Your task to perform on an android device: install app "Instagram" Image 0: 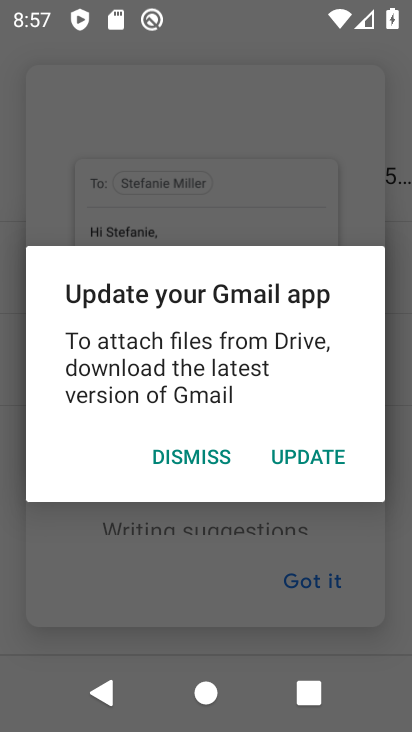
Step 0: press home button
Your task to perform on an android device: install app "Instagram" Image 1: 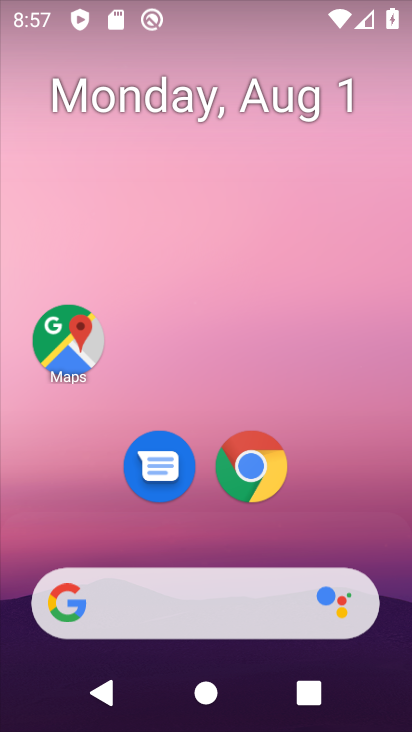
Step 1: drag from (249, 719) to (272, 70)
Your task to perform on an android device: install app "Instagram" Image 2: 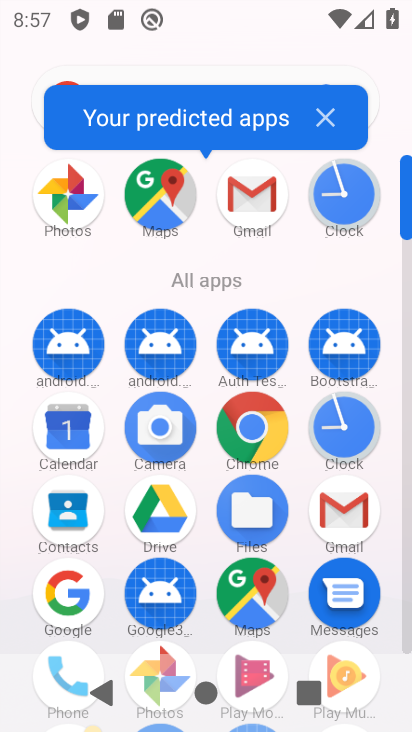
Step 2: drag from (207, 632) to (178, 222)
Your task to perform on an android device: install app "Instagram" Image 3: 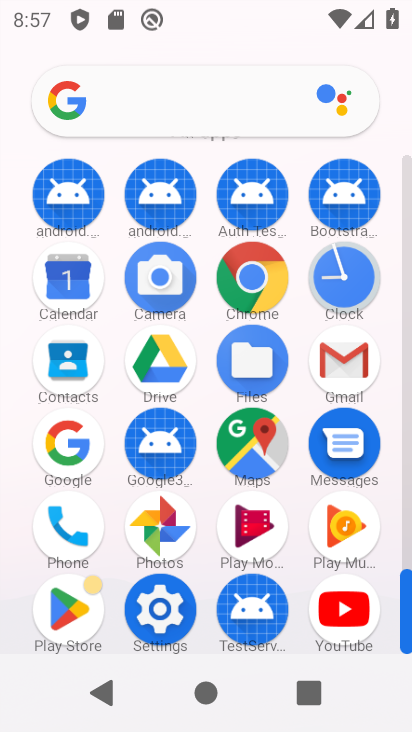
Step 3: click (70, 609)
Your task to perform on an android device: install app "Instagram" Image 4: 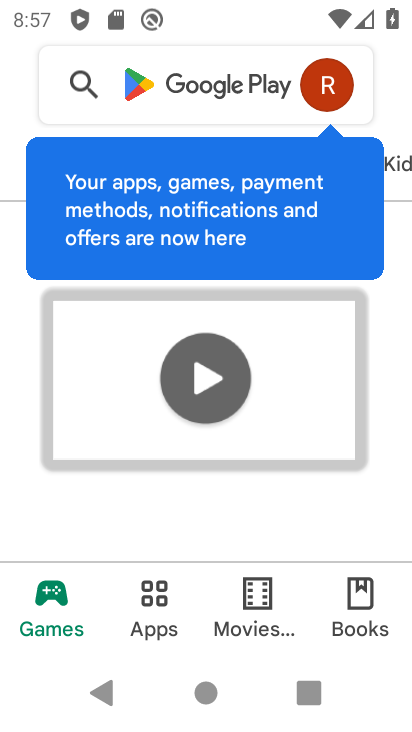
Step 4: click (77, 85)
Your task to perform on an android device: install app "Instagram" Image 5: 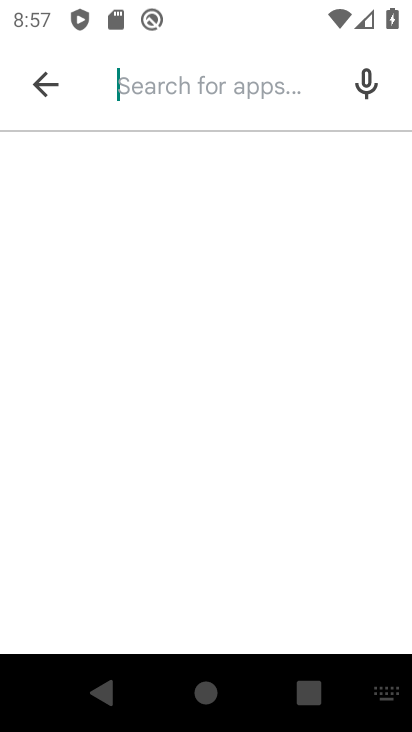
Step 5: type "Instagram"
Your task to perform on an android device: install app "Instagram" Image 6: 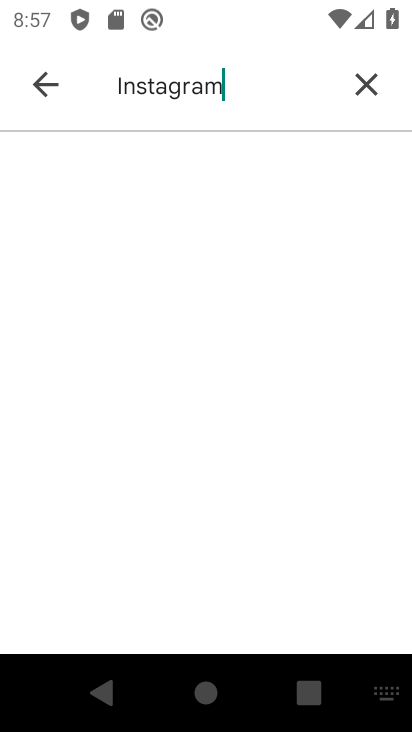
Step 6: type ""
Your task to perform on an android device: install app "Instagram" Image 7: 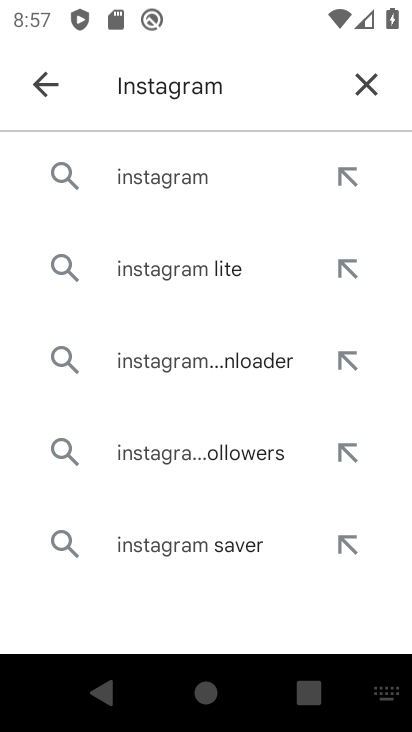
Step 7: click (184, 170)
Your task to perform on an android device: install app "Instagram" Image 8: 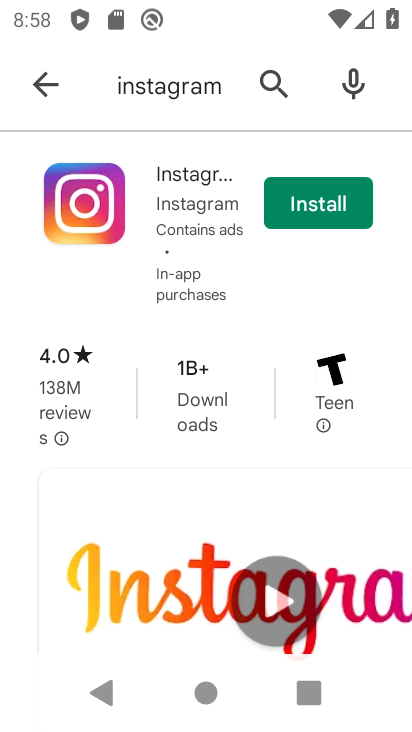
Step 8: click (319, 207)
Your task to perform on an android device: install app "Instagram" Image 9: 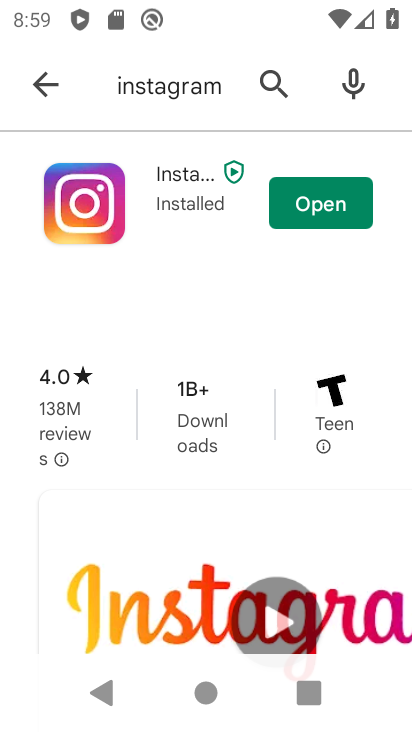
Step 9: task complete